Your task to perform on an android device: open a new tab in the chrome app Image 0: 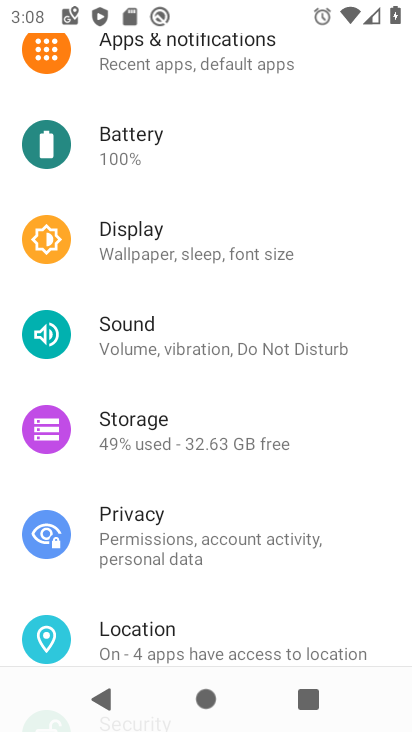
Step 0: press home button
Your task to perform on an android device: open a new tab in the chrome app Image 1: 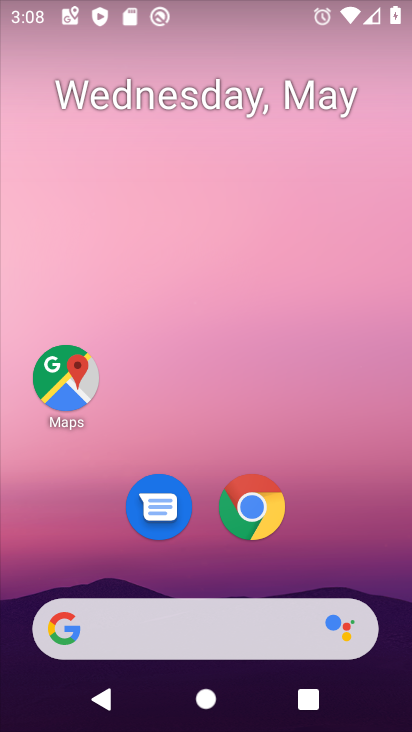
Step 1: click (251, 507)
Your task to perform on an android device: open a new tab in the chrome app Image 2: 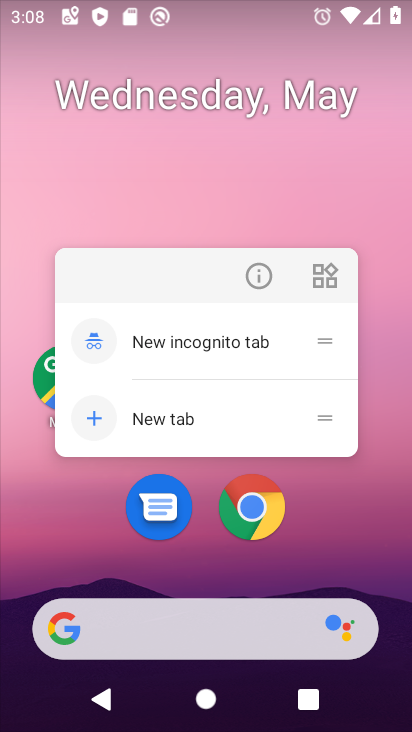
Step 2: click (251, 517)
Your task to perform on an android device: open a new tab in the chrome app Image 3: 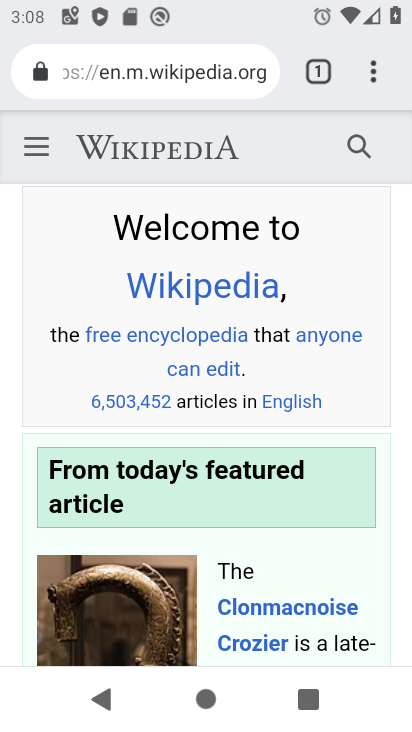
Step 3: click (327, 64)
Your task to perform on an android device: open a new tab in the chrome app Image 4: 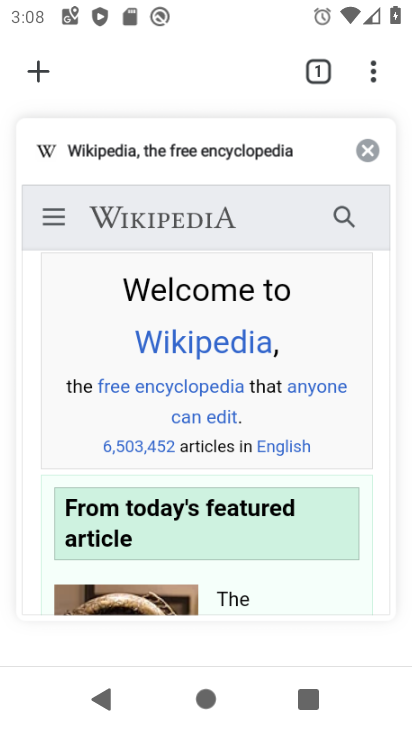
Step 4: click (39, 72)
Your task to perform on an android device: open a new tab in the chrome app Image 5: 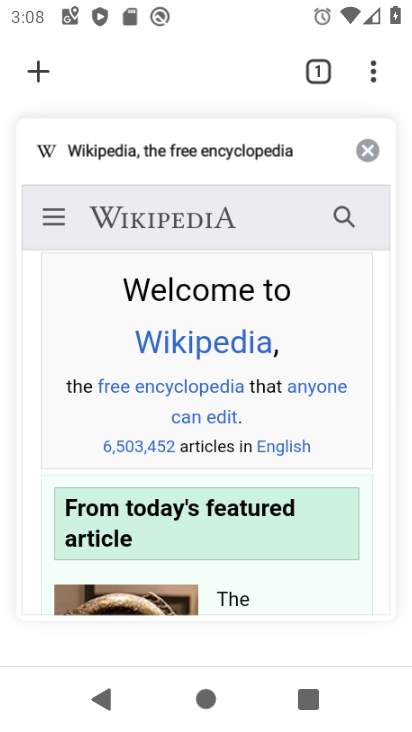
Step 5: click (38, 75)
Your task to perform on an android device: open a new tab in the chrome app Image 6: 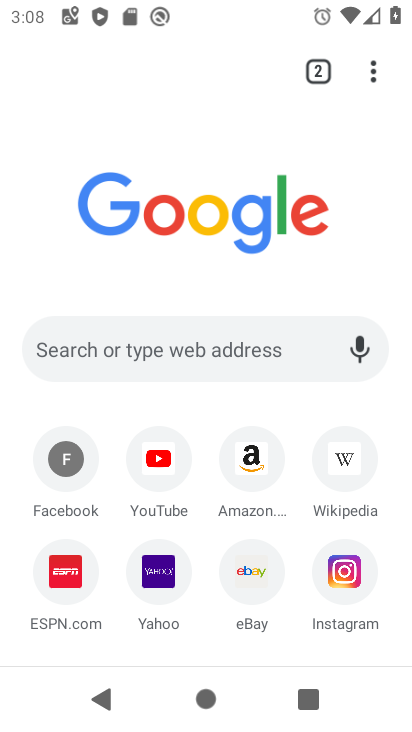
Step 6: task complete